Your task to perform on an android device: Open calendar and show me the second week of next month Image 0: 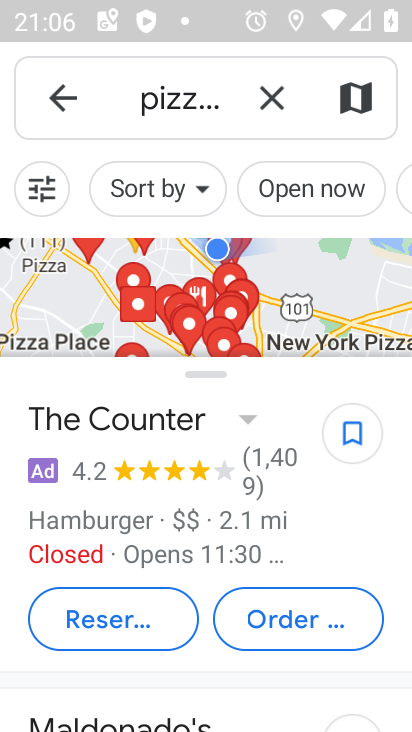
Step 0: press home button
Your task to perform on an android device: Open calendar and show me the second week of next month Image 1: 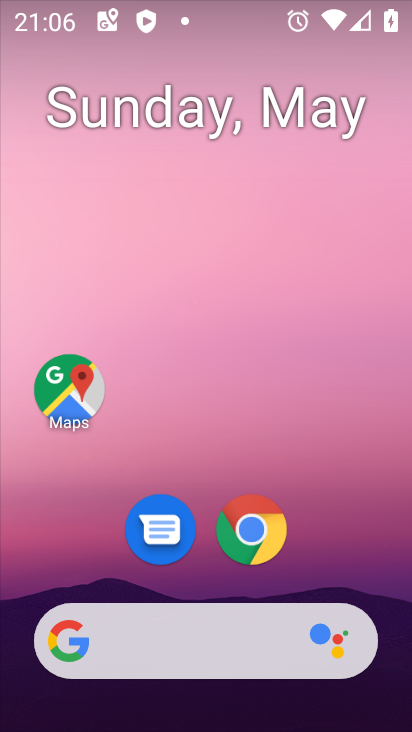
Step 1: drag from (369, 573) to (365, 7)
Your task to perform on an android device: Open calendar and show me the second week of next month Image 2: 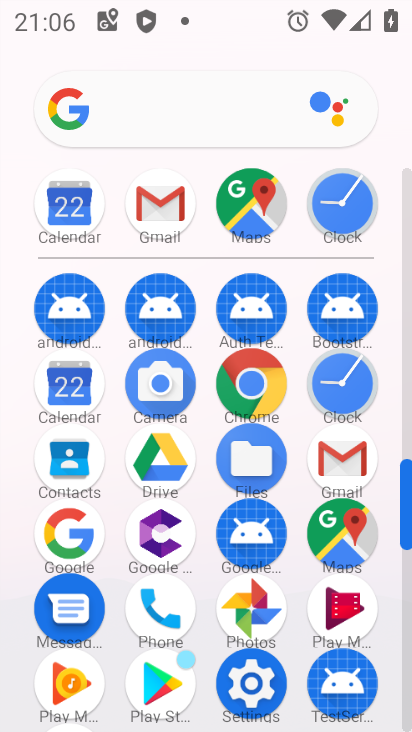
Step 2: click (72, 211)
Your task to perform on an android device: Open calendar and show me the second week of next month Image 3: 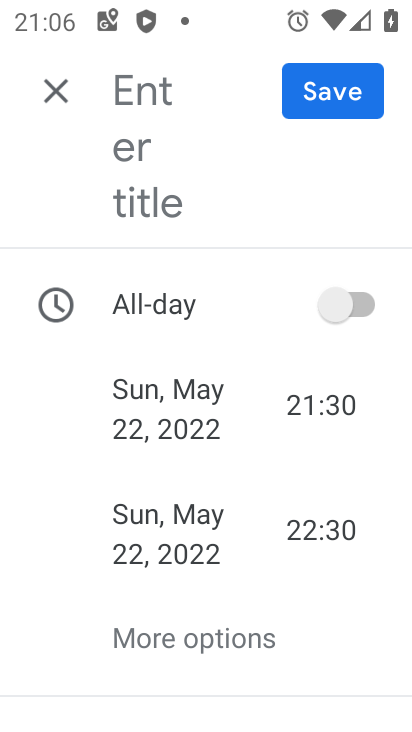
Step 3: click (47, 98)
Your task to perform on an android device: Open calendar and show me the second week of next month Image 4: 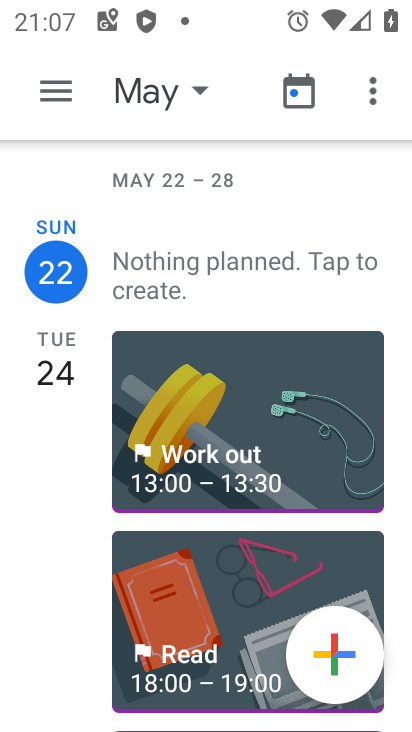
Step 4: click (194, 90)
Your task to perform on an android device: Open calendar and show me the second week of next month Image 5: 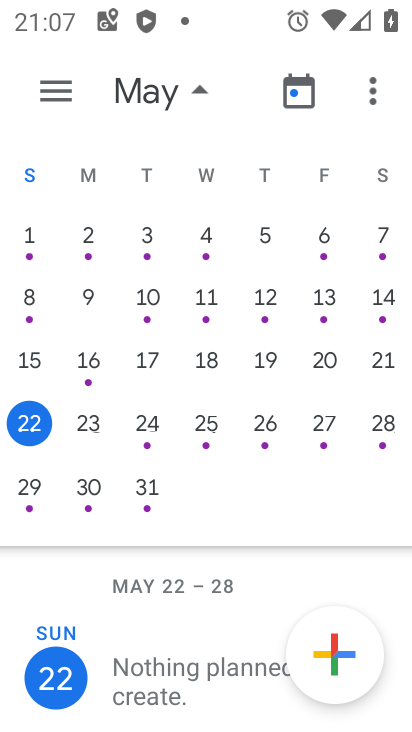
Step 5: drag from (343, 321) to (26, 284)
Your task to perform on an android device: Open calendar and show me the second week of next month Image 6: 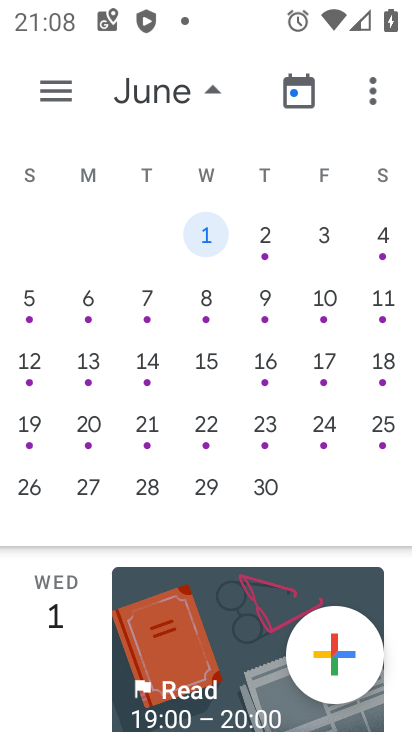
Step 6: click (56, 91)
Your task to perform on an android device: Open calendar and show me the second week of next month Image 7: 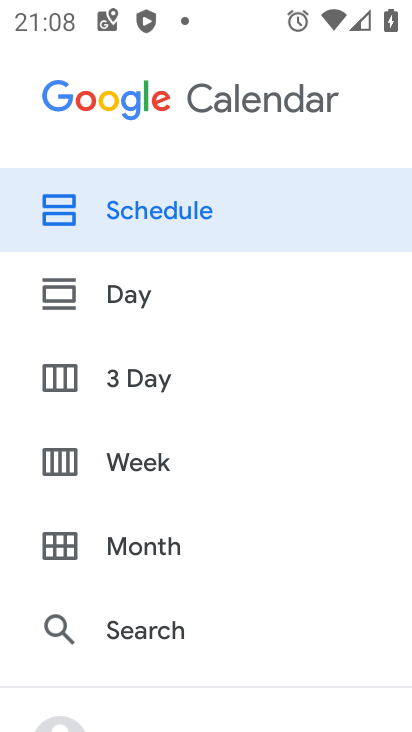
Step 7: click (82, 463)
Your task to perform on an android device: Open calendar and show me the second week of next month Image 8: 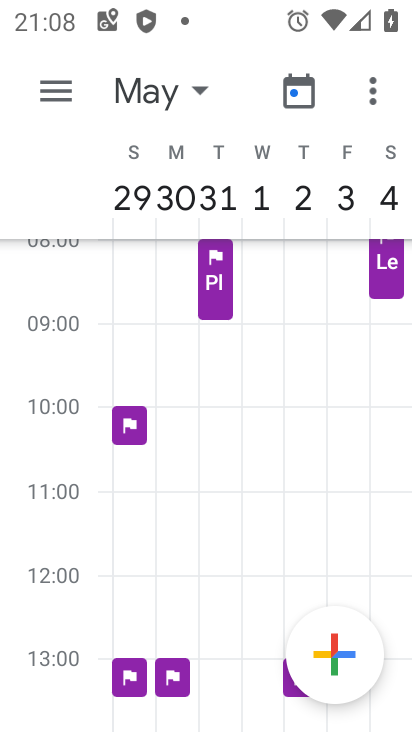
Step 8: task complete